Your task to perform on an android device: turn on showing notifications on the lock screen Image 0: 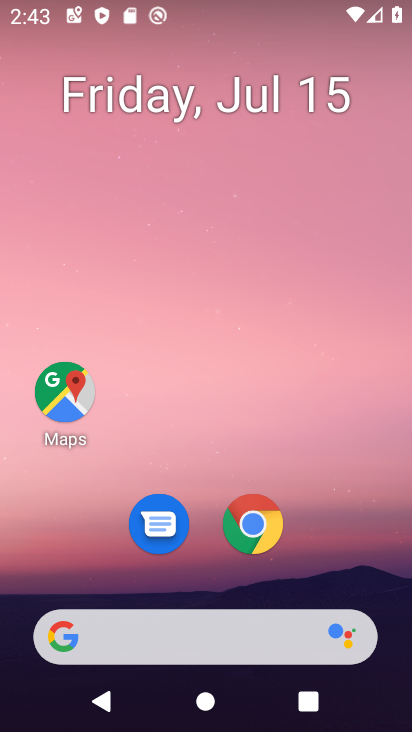
Step 0: drag from (210, 636) to (305, 50)
Your task to perform on an android device: turn on showing notifications on the lock screen Image 1: 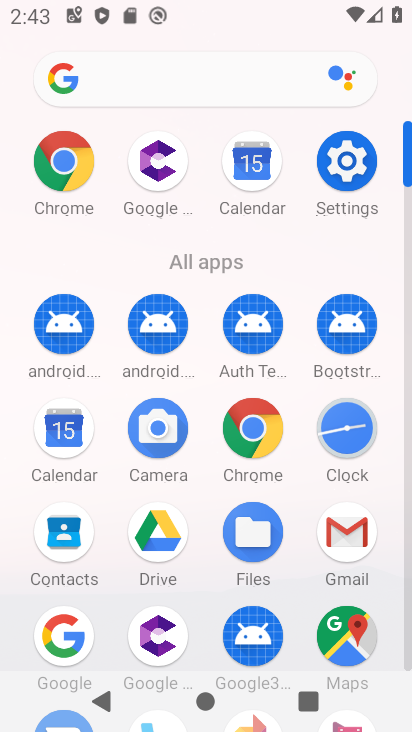
Step 1: click (347, 171)
Your task to perform on an android device: turn on showing notifications on the lock screen Image 2: 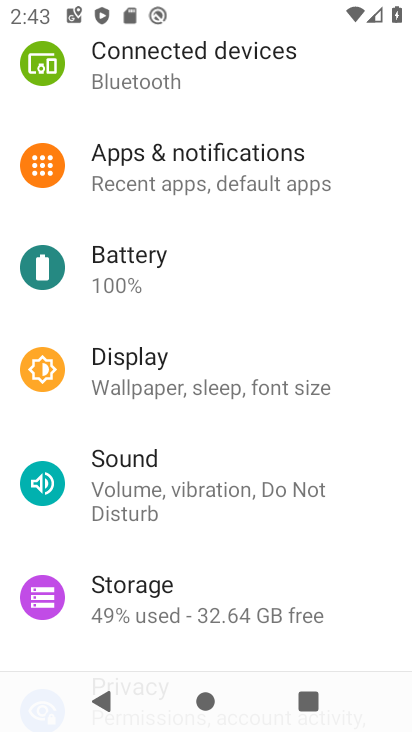
Step 2: click (243, 174)
Your task to perform on an android device: turn on showing notifications on the lock screen Image 3: 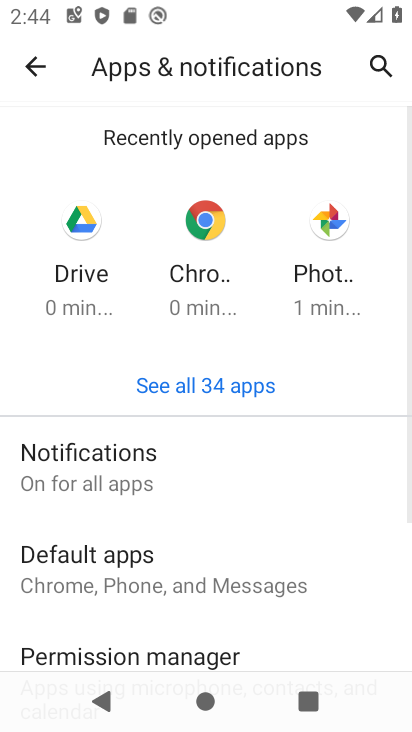
Step 3: click (126, 464)
Your task to perform on an android device: turn on showing notifications on the lock screen Image 4: 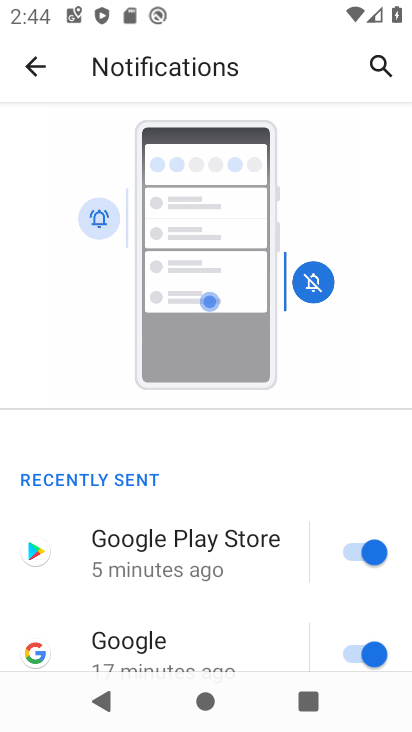
Step 4: drag from (244, 598) to (300, 8)
Your task to perform on an android device: turn on showing notifications on the lock screen Image 5: 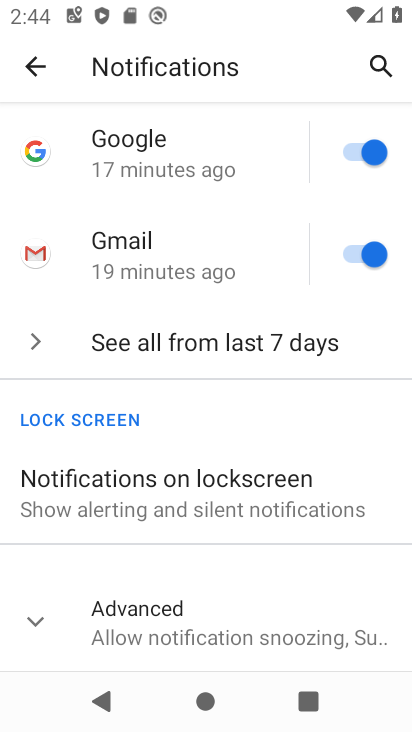
Step 5: click (222, 500)
Your task to perform on an android device: turn on showing notifications on the lock screen Image 6: 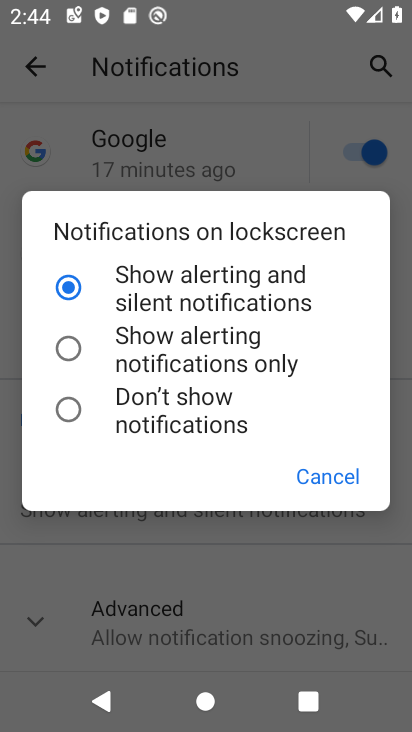
Step 6: task complete